Your task to perform on an android device: toggle javascript in the chrome app Image 0: 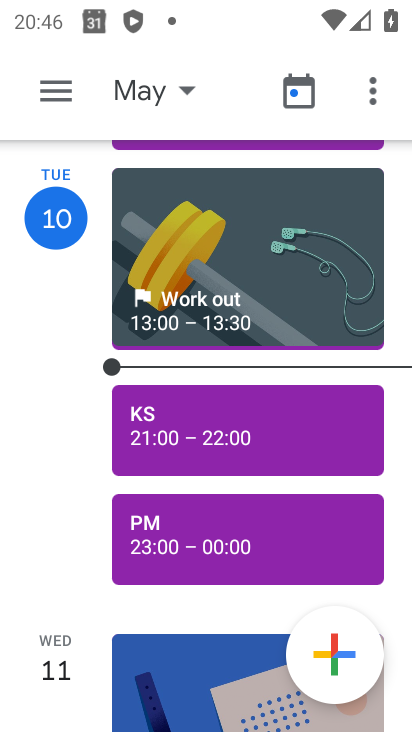
Step 0: press home button
Your task to perform on an android device: toggle javascript in the chrome app Image 1: 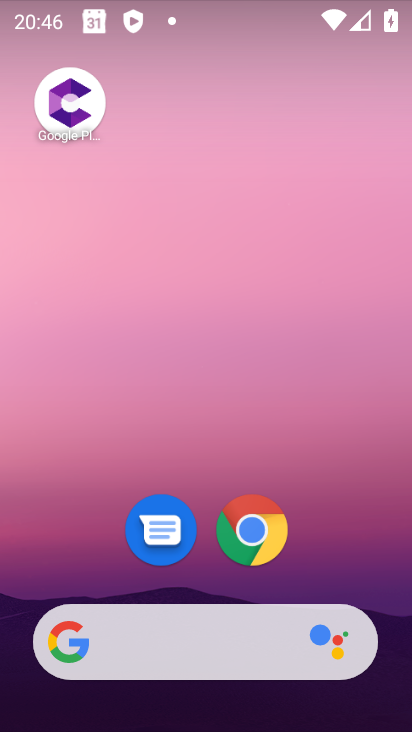
Step 1: click (241, 548)
Your task to perform on an android device: toggle javascript in the chrome app Image 2: 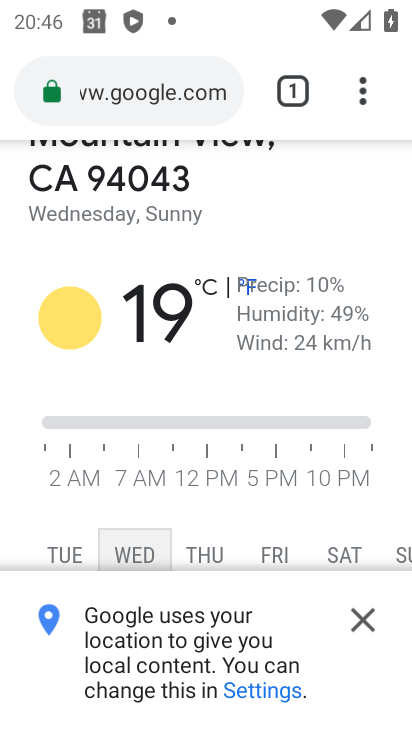
Step 2: click (366, 95)
Your task to perform on an android device: toggle javascript in the chrome app Image 3: 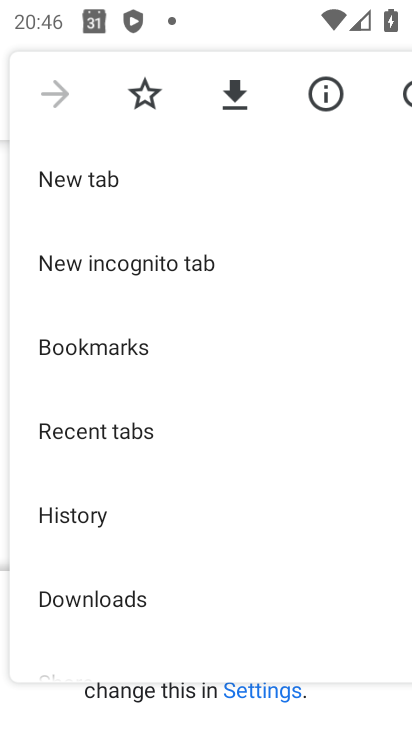
Step 3: drag from (115, 515) to (144, 144)
Your task to perform on an android device: toggle javascript in the chrome app Image 4: 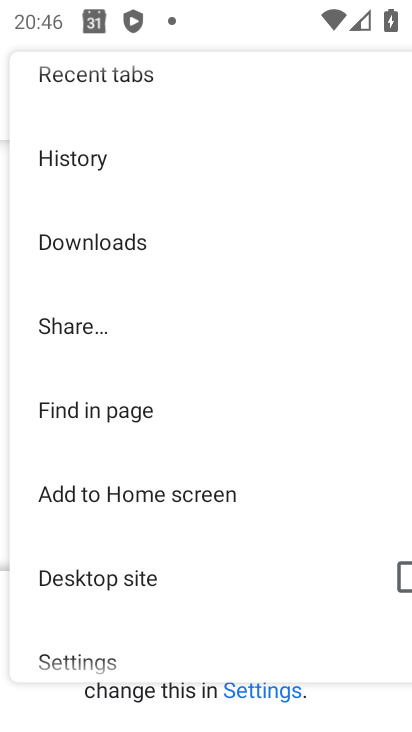
Step 4: drag from (151, 616) to (179, 280)
Your task to perform on an android device: toggle javascript in the chrome app Image 5: 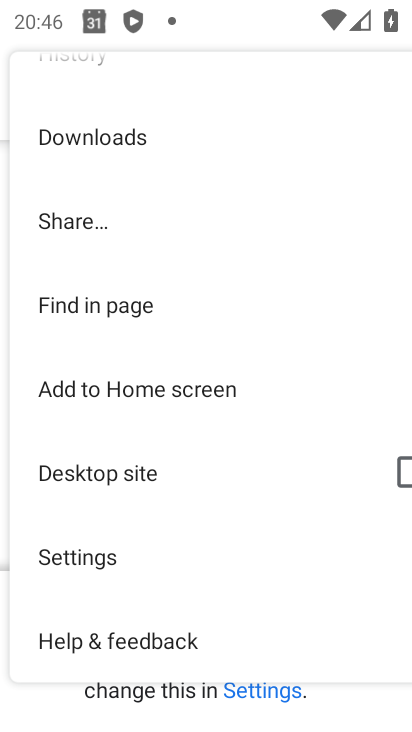
Step 5: click (126, 573)
Your task to perform on an android device: toggle javascript in the chrome app Image 6: 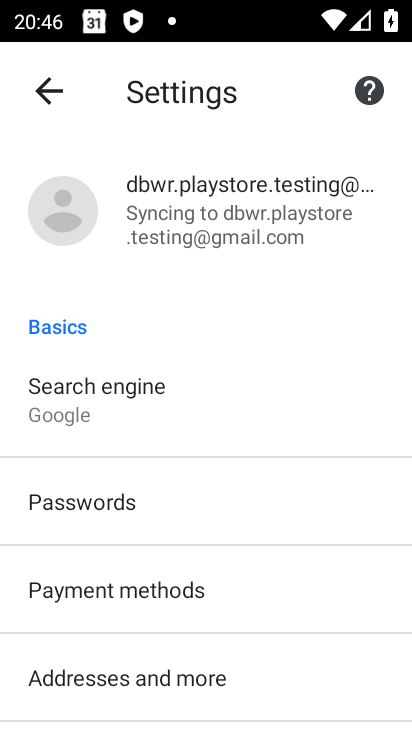
Step 6: drag from (228, 625) to (214, 310)
Your task to perform on an android device: toggle javascript in the chrome app Image 7: 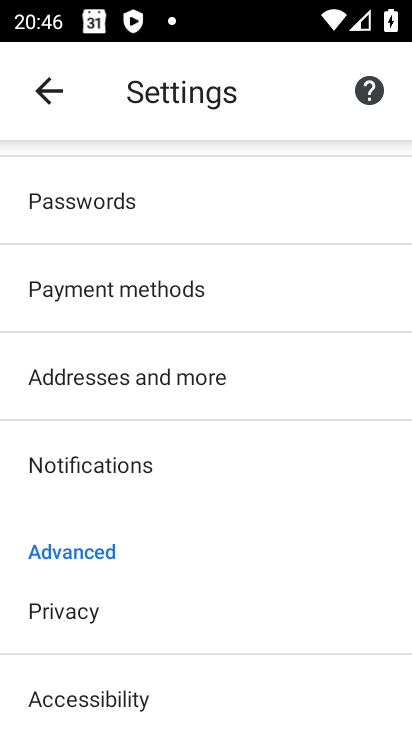
Step 7: drag from (197, 659) to (224, 343)
Your task to perform on an android device: toggle javascript in the chrome app Image 8: 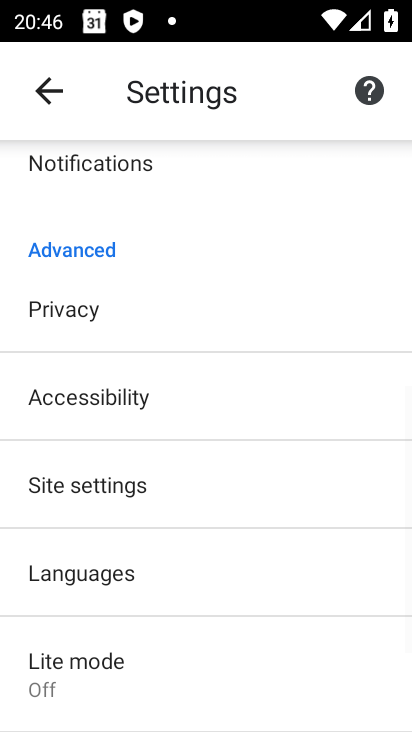
Step 8: click (75, 514)
Your task to perform on an android device: toggle javascript in the chrome app Image 9: 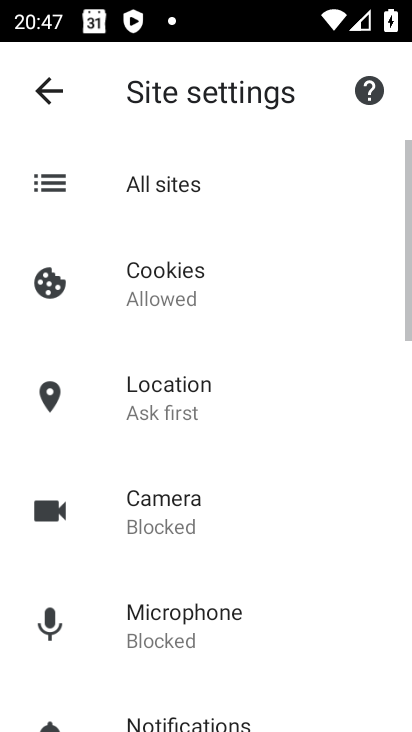
Step 9: drag from (235, 640) to (244, 286)
Your task to perform on an android device: toggle javascript in the chrome app Image 10: 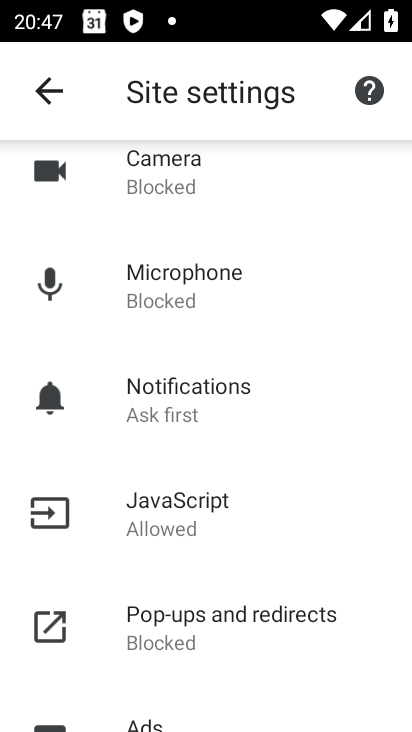
Step 10: click (209, 516)
Your task to perform on an android device: toggle javascript in the chrome app Image 11: 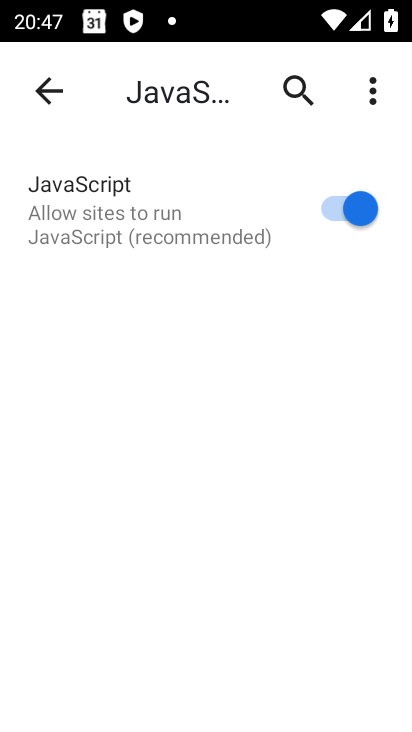
Step 11: task complete